Your task to perform on an android device: Go to location settings Image 0: 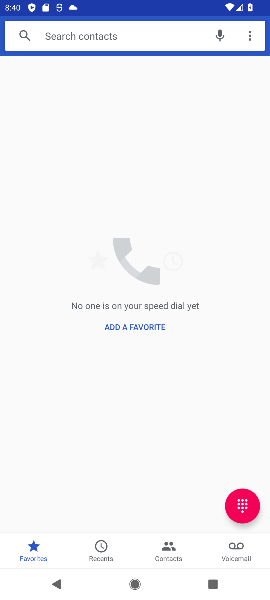
Step 0: drag from (124, 454) to (124, 282)
Your task to perform on an android device: Go to location settings Image 1: 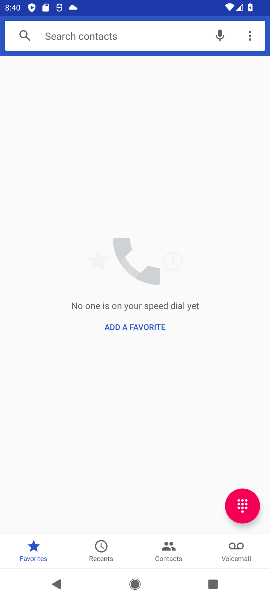
Step 1: drag from (130, 461) to (176, 297)
Your task to perform on an android device: Go to location settings Image 2: 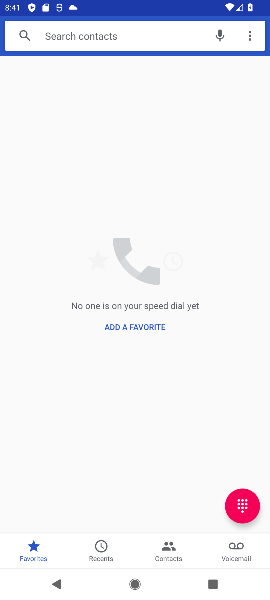
Step 2: drag from (136, 450) to (164, 249)
Your task to perform on an android device: Go to location settings Image 3: 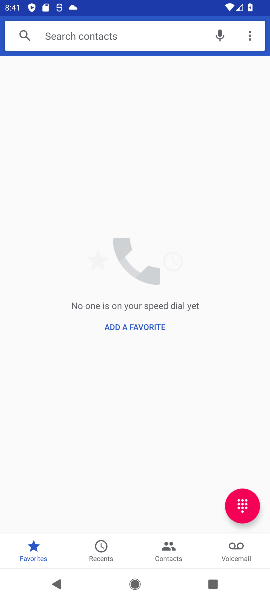
Step 3: drag from (174, 197) to (176, 449)
Your task to perform on an android device: Go to location settings Image 4: 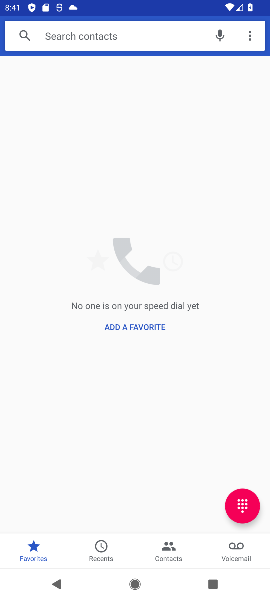
Step 4: drag from (127, 218) to (171, 486)
Your task to perform on an android device: Go to location settings Image 5: 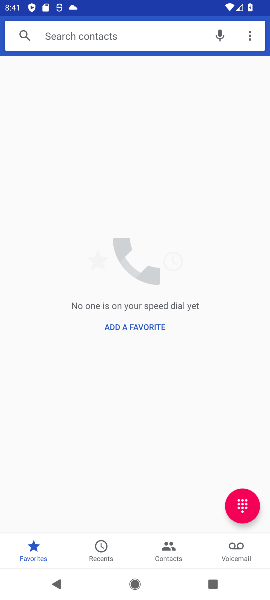
Step 5: drag from (129, 235) to (163, 446)
Your task to perform on an android device: Go to location settings Image 6: 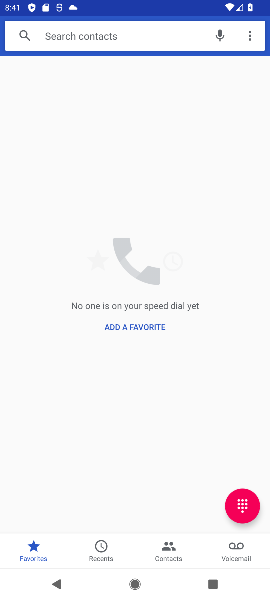
Step 6: drag from (140, 287) to (139, 151)
Your task to perform on an android device: Go to location settings Image 7: 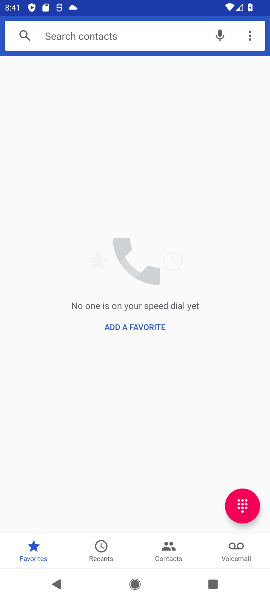
Step 7: drag from (152, 401) to (158, 235)
Your task to perform on an android device: Go to location settings Image 8: 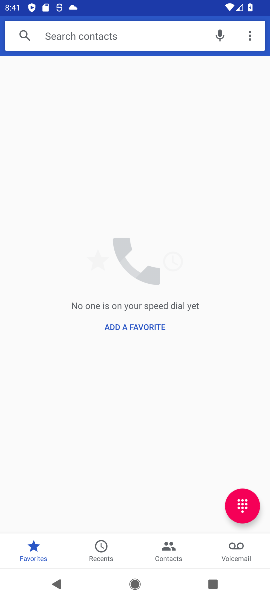
Step 8: drag from (149, 221) to (142, 340)
Your task to perform on an android device: Go to location settings Image 9: 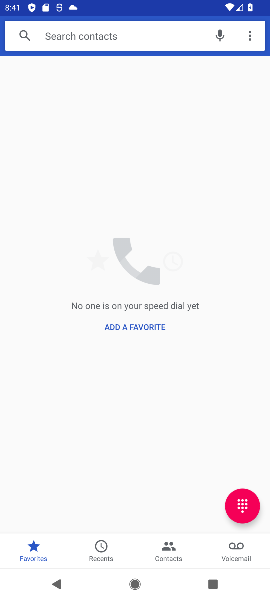
Step 9: drag from (133, 299) to (124, 209)
Your task to perform on an android device: Go to location settings Image 10: 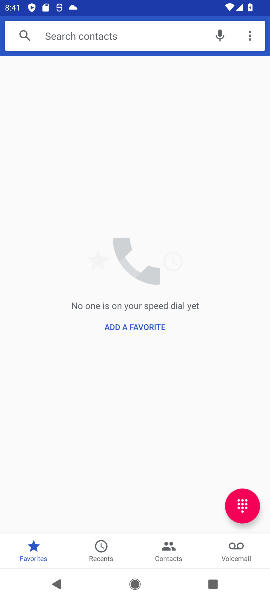
Step 10: drag from (113, 450) to (152, 157)
Your task to perform on an android device: Go to location settings Image 11: 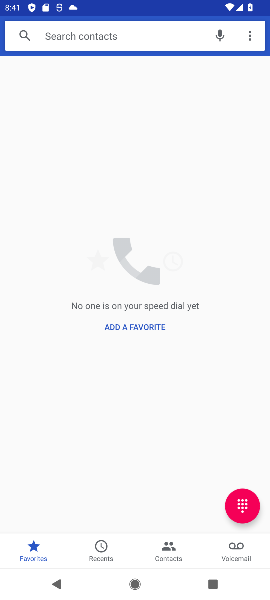
Step 11: press home button
Your task to perform on an android device: Go to location settings Image 12: 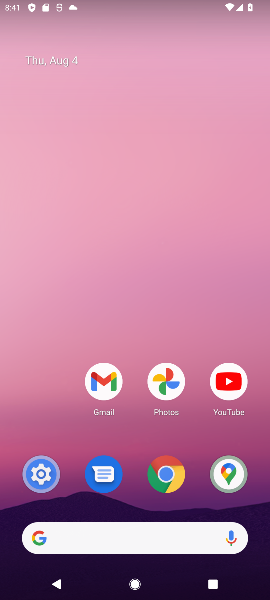
Step 12: drag from (147, 495) to (141, 244)
Your task to perform on an android device: Go to location settings Image 13: 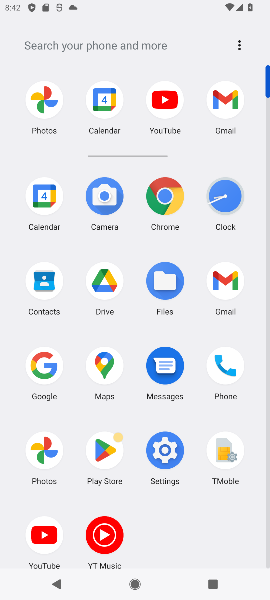
Step 13: drag from (159, 531) to (173, 367)
Your task to perform on an android device: Go to location settings Image 14: 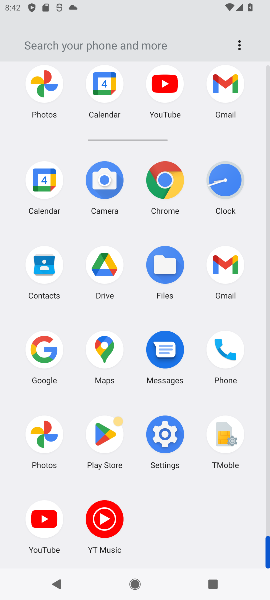
Step 14: click (162, 436)
Your task to perform on an android device: Go to location settings Image 15: 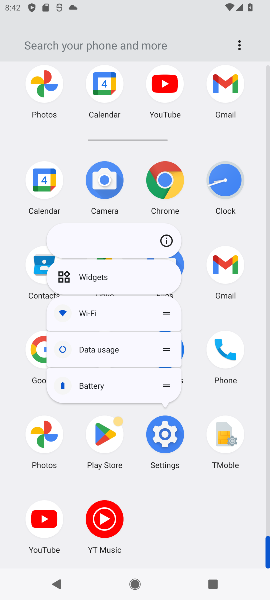
Step 15: click (164, 240)
Your task to perform on an android device: Go to location settings Image 16: 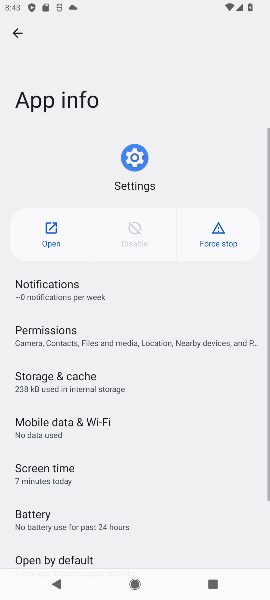
Step 16: click (49, 218)
Your task to perform on an android device: Go to location settings Image 17: 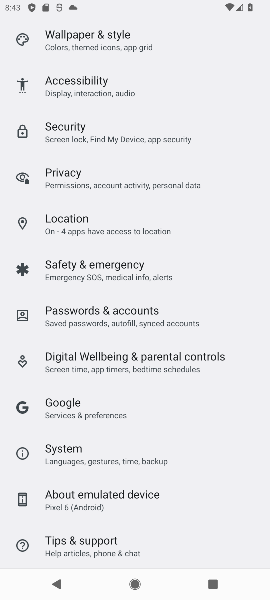
Step 17: drag from (88, 511) to (155, 209)
Your task to perform on an android device: Go to location settings Image 18: 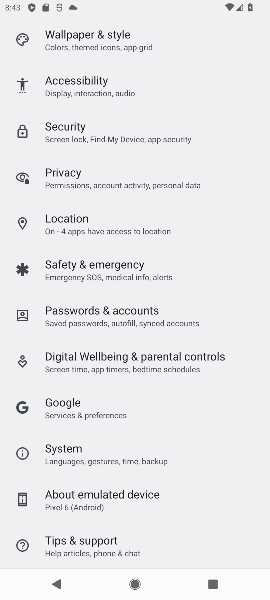
Step 18: drag from (103, 245) to (135, 466)
Your task to perform on an android device: Go to location settings Image 19: 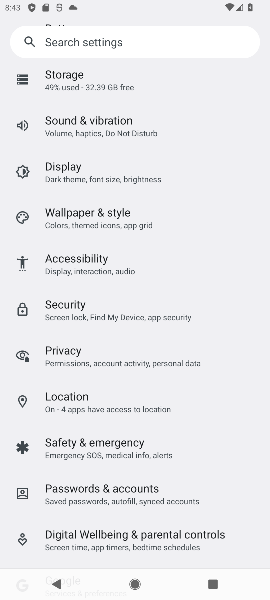
Step 19: click (79, 396)
Your task to perform on an android device: Go to location settings Image 20: 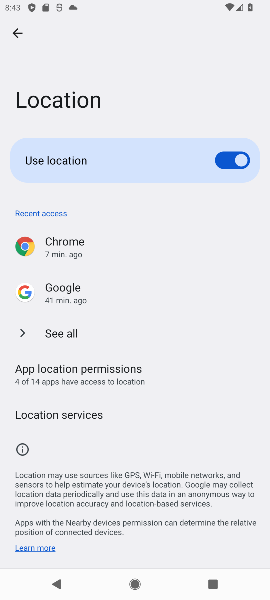
Step 20: task complete